Your task to perform on an android device: Go to accessibility settings Image 0: 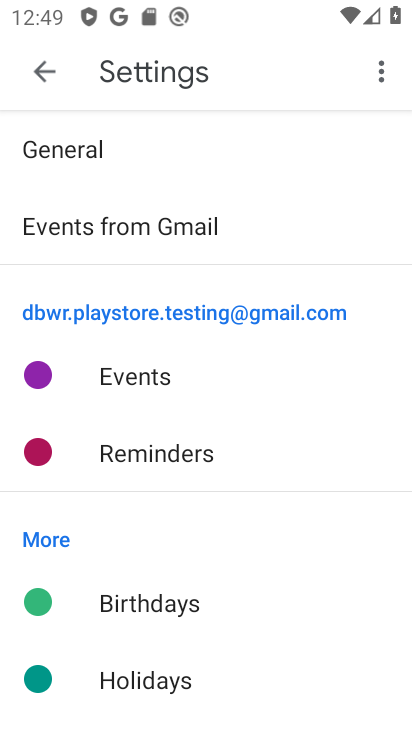
Step 0: press back button
Your task to perform on an android device: Go to accessibility settings Image 1: 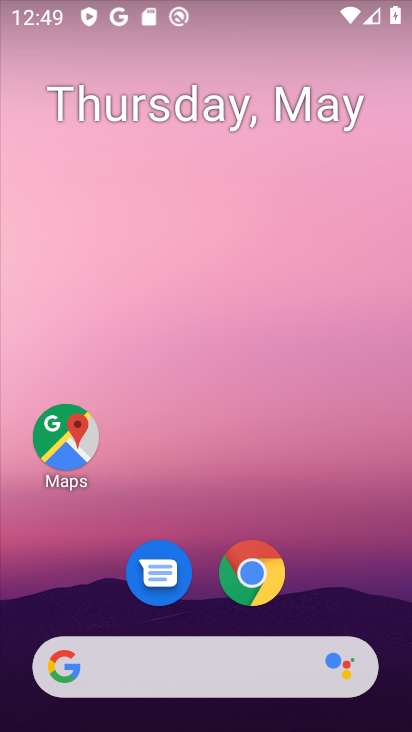
Step 1: drag from (322, 583) to (278, 9)
Your task to perform on an android device: Go to accessibility settings Image 2: 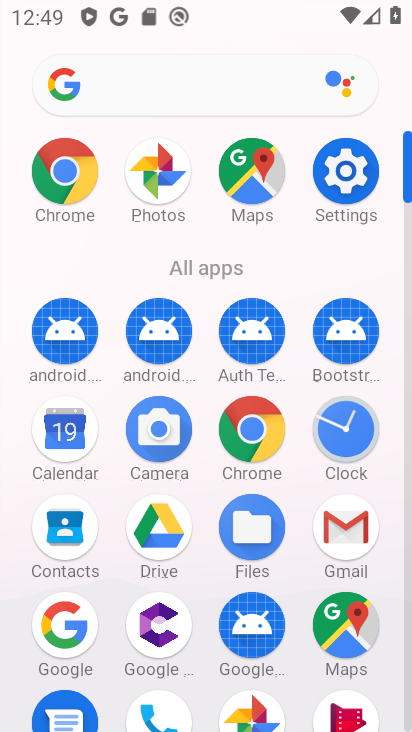
Step 2: drag from (25, 540) to (30, 217)
Your task to perform on an android device: Go to accessibility settings Image 3: 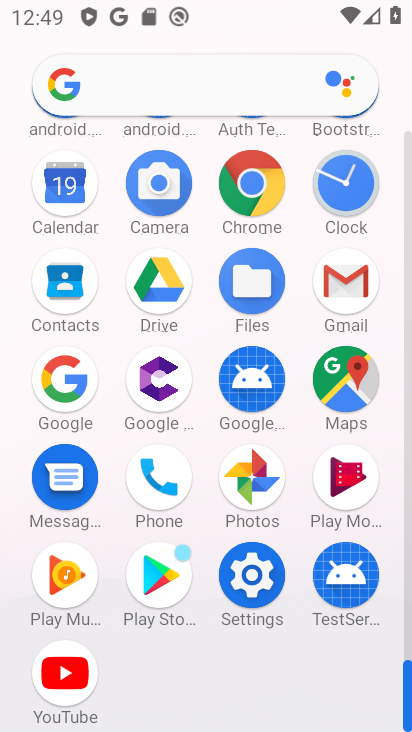
Step 3: click (249, 574)
Your task to perform on an android device: Go to accessibility settings Image 4: 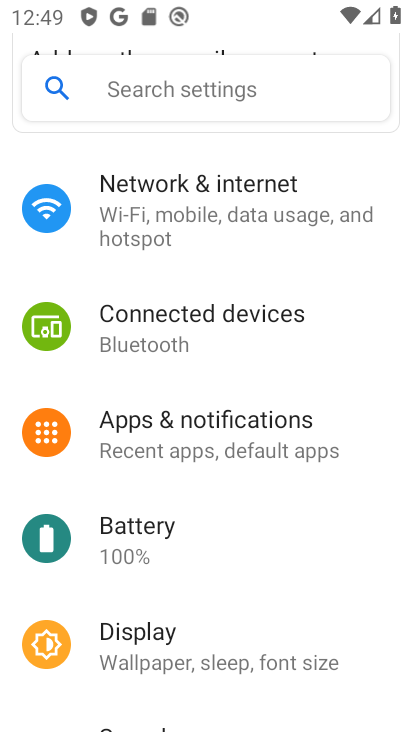
Step 4: drag from (206, 638) to (228, 219)
Your task to perform on an android device: Go to accessibility settings Image 5: 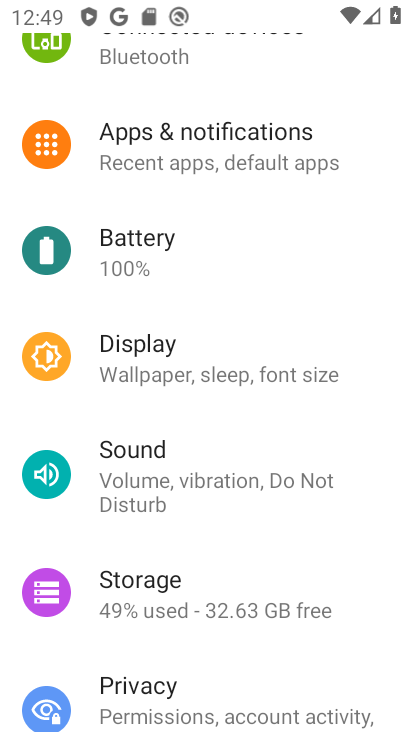
Step 5: drag from (195, 564) to (223, 149)
Your task to perform on an android device: Go to accessibility settings Image 6: 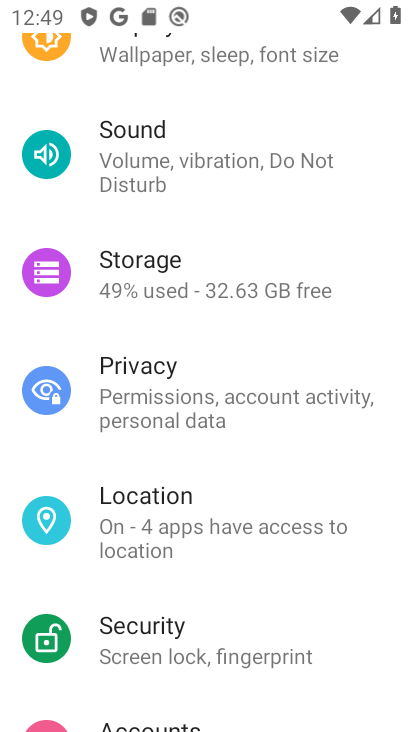
Step 6: drag from (229, 571) to (240, 137)
Your task to perform on an android device: Go to accessibility settings Image 7: 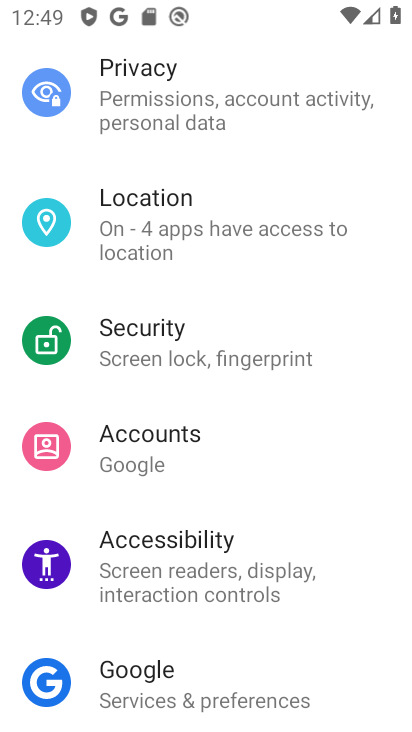
Step 7: click (202, 543)
Your task to perform on an android device: Go to accessibility settings Image 8: 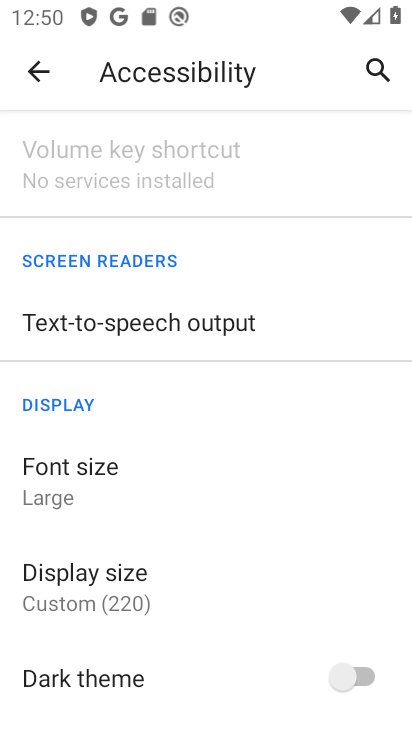
Step 8: task complete